Your task to perform on an android device: check storage Image 0: 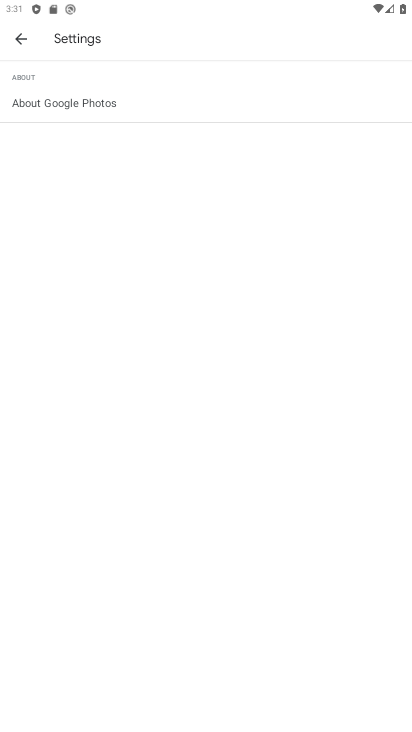
Step 0: press home button
Your task to perform on an android device: check storage Image 1: 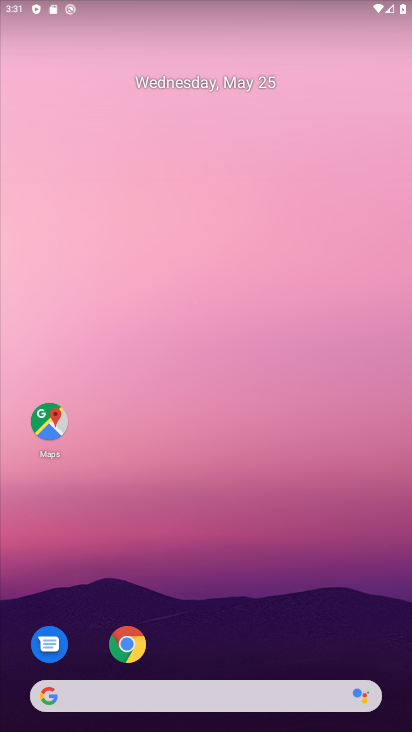
Step 1: drag from (291, 607) to (294, 7)
Your task to perform on an android device: check storage Image 2: 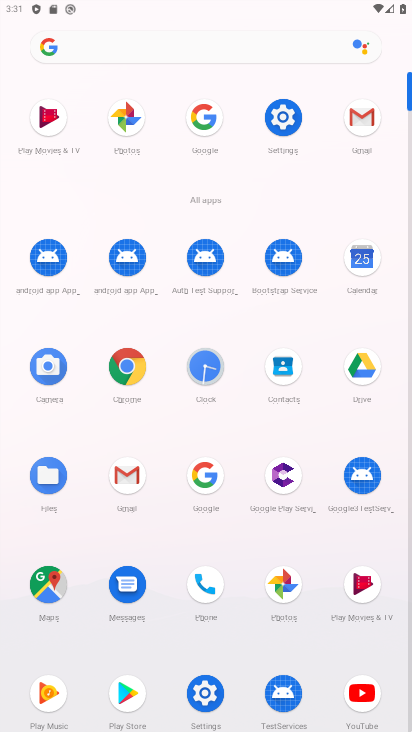
Step 2: click (286, 117)
Your task to perform on an android device: check storage Image 3: 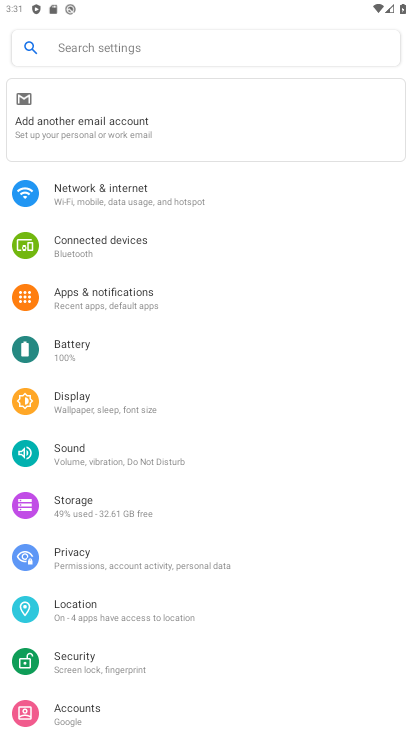
Step 3: click (86, 512)
Your task to perform on an android device: check storage Image 4: 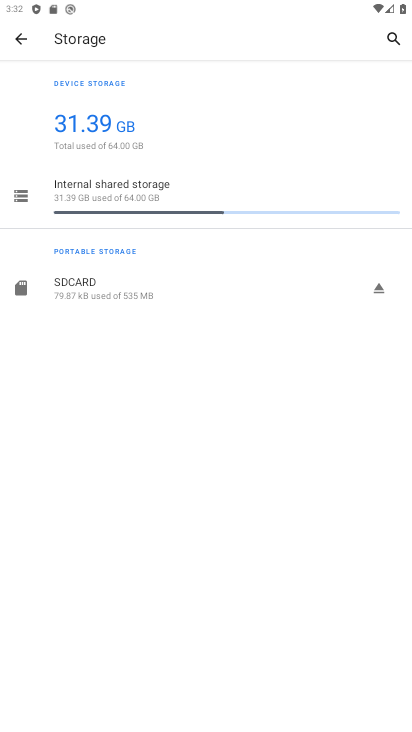
Step 4: click (125, 189)
Your task to perform on an android device: check storage Image 5: 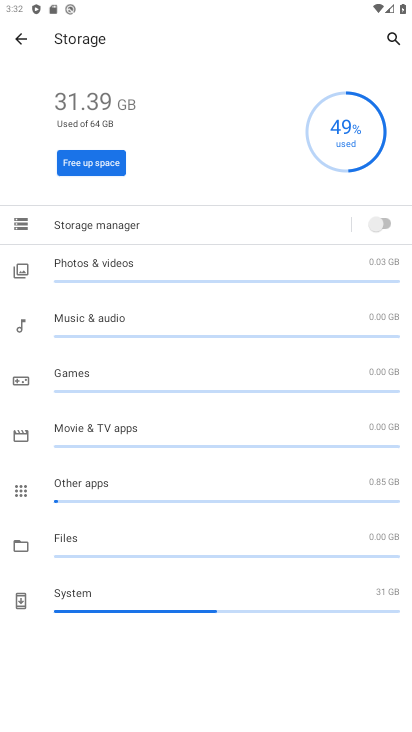
Step 5: task complete